Your task to perform on an android device: turn off sleep mode Image 0: 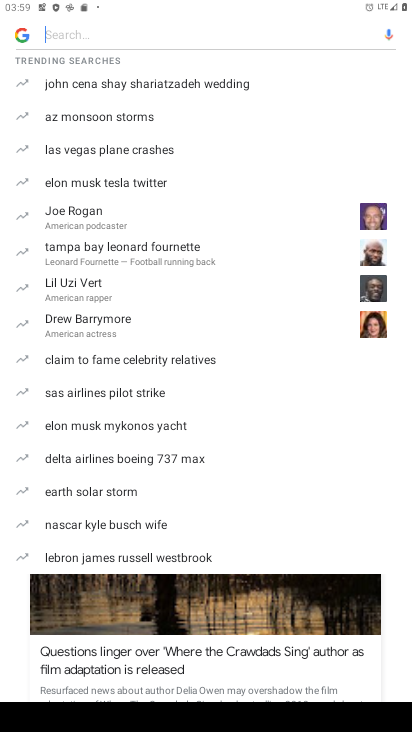
Step 0: press home button
Your task to perform on an android device: turn off sleep mode Image 1: 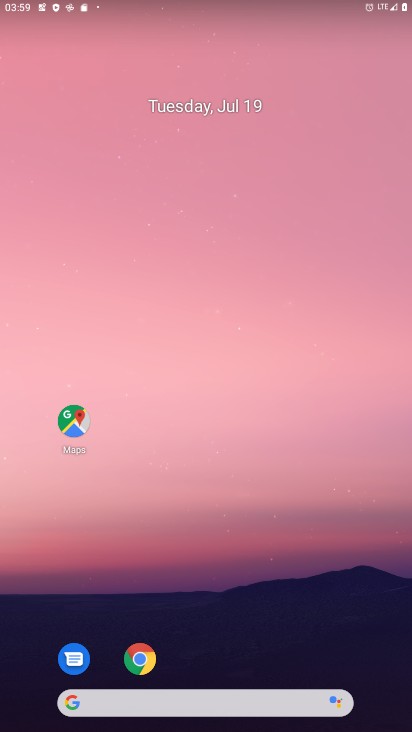
Step 1: drag from (250, 638) to (250, 232)
Your task to perform on an android device: turn off sleep mode Image 2: 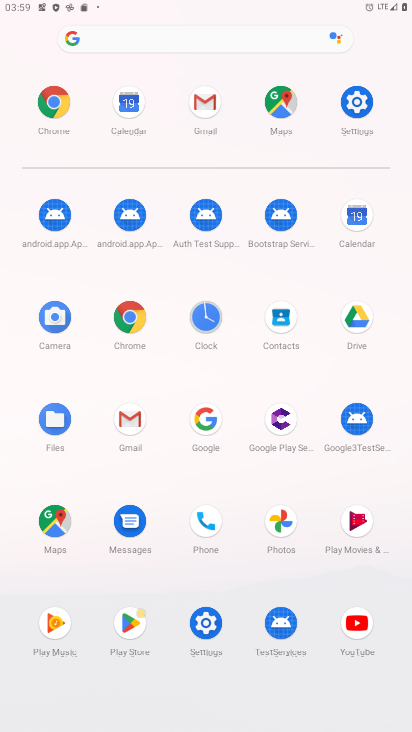
Step 2: click (213, 617)
Your task to perform on an android device: turn off sleep mode Image 3: 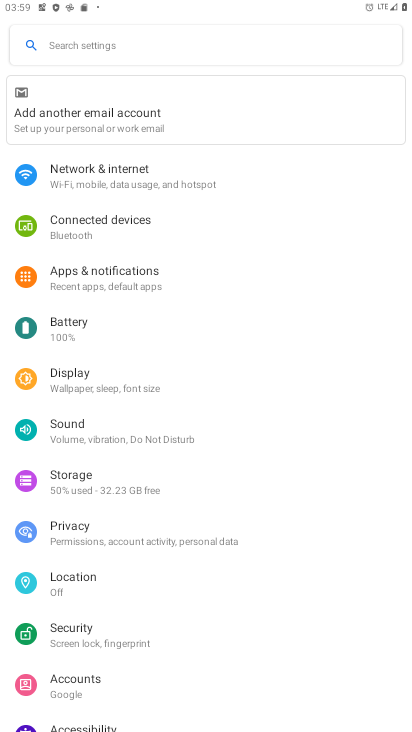
Step 3: click (87, 377)
Your task to perform on an android device: turn off sleep mode Image 4: 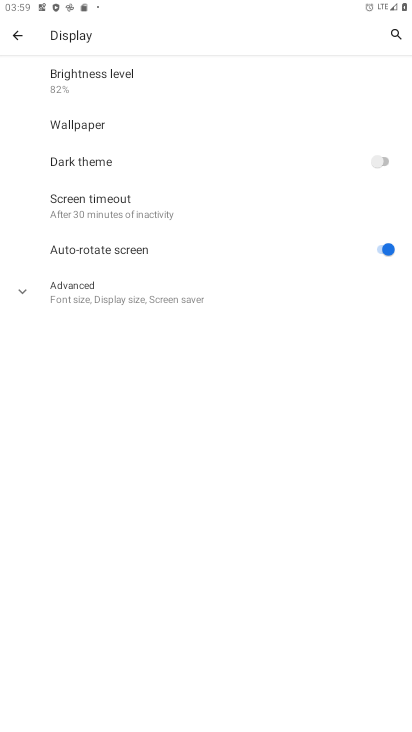
Step 4: task complete